Your task to perform on an android device: toggle wifi Image 0: 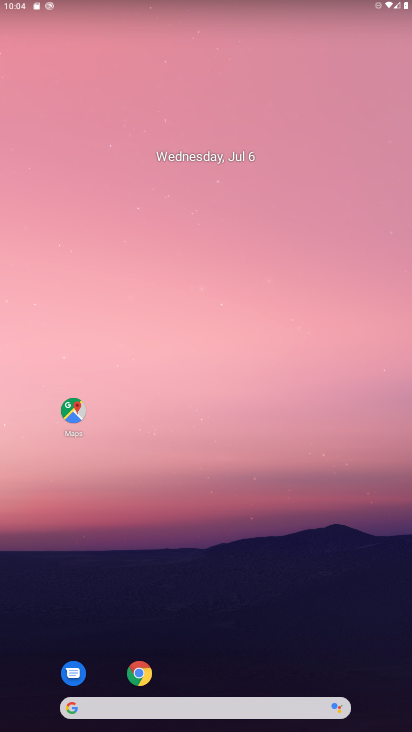
Step 0: click (79, 398)
Your task to perform on an android device: toggle wifi Image 1: 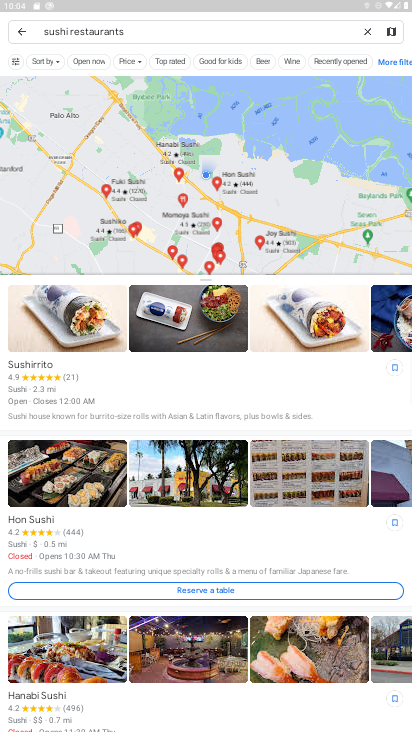
Step 1: drag from (164, 7) to (191, 528)
Your task to perform on an android device: toggle wifi Image 2: 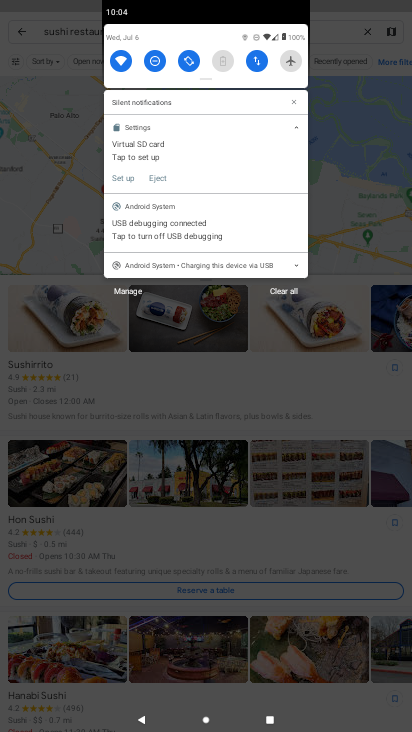
Step 2: click (128, 58)
Your task to perform on an android device: toggle wifi Image 3: 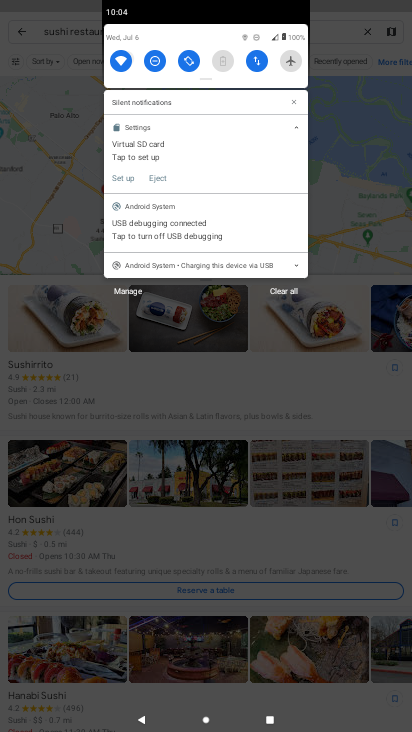
Step 3: click (128, 58)
Your task to perform on an android device: toggle wifi Image 4: 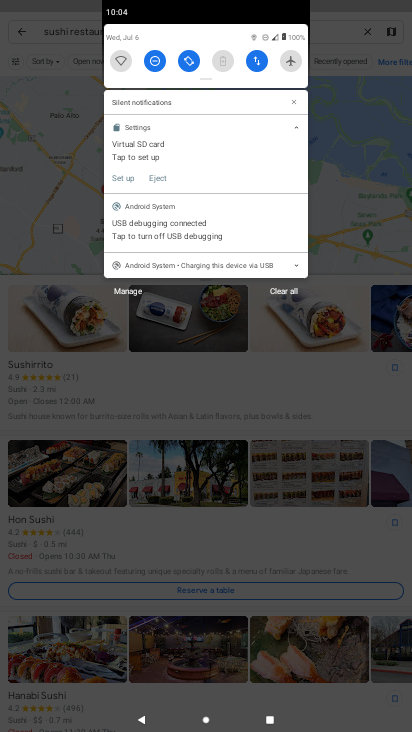
Step 4: click (128, 58)
Your task to perform on an android device: toggle wifi Image 5: 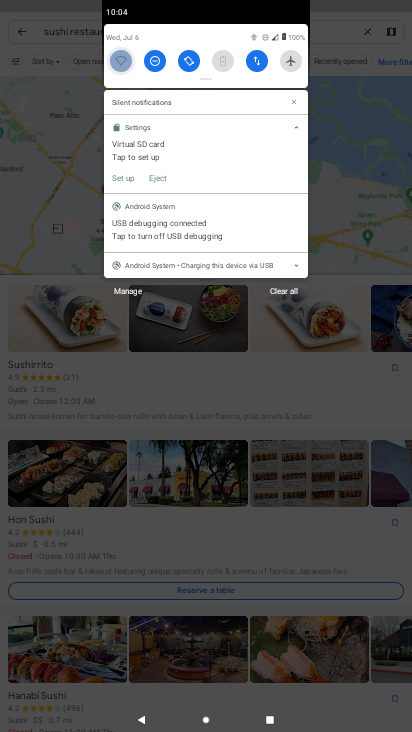
Step 5: click (128, 58)
Your task to perform on an android device: toggle wifi Image 6: 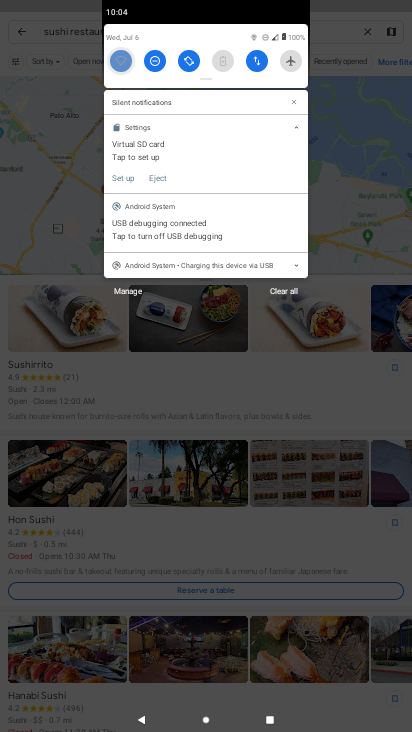
Step 6: click (128, 58)
Your task to perform on an android device: toggle wifi Image 7: 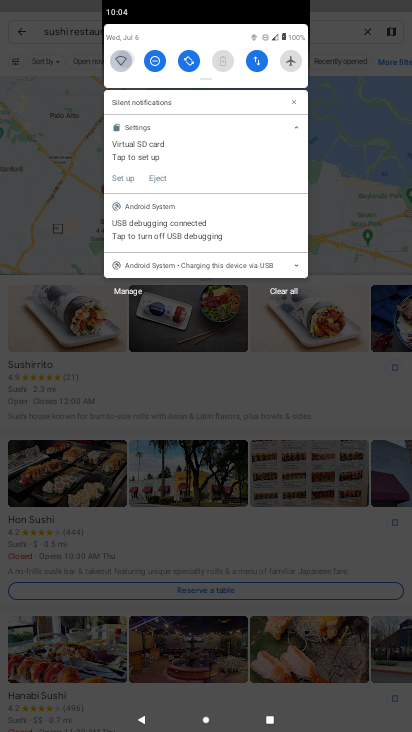
Step 7: click (128, 58)
Your task to perform on an android device: toggle wifi Image 8: 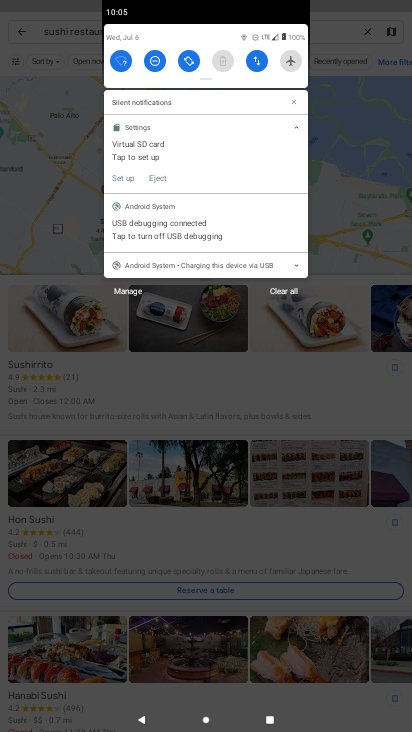
Step 8: task complete